Your task to perform on an android device: What's on my calendar today? Image 0: 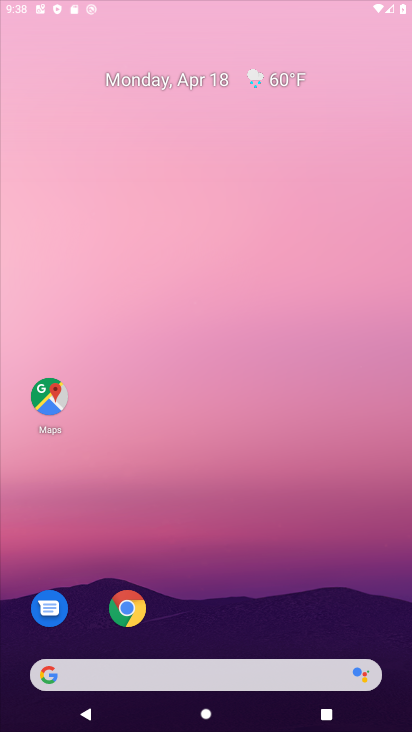
Step 0: click (273, 86)
Your task to perform on an android device: What's on my calendar today? Image 1: 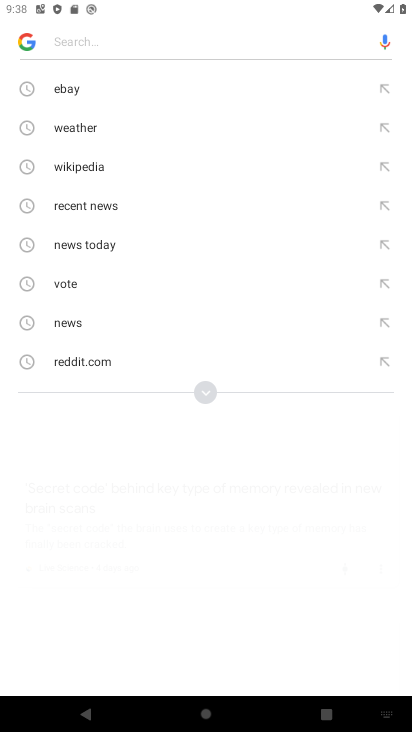
Step 1: click (77, 719)
Your task to perform on an android device: What's on my calendar today? Image 2: 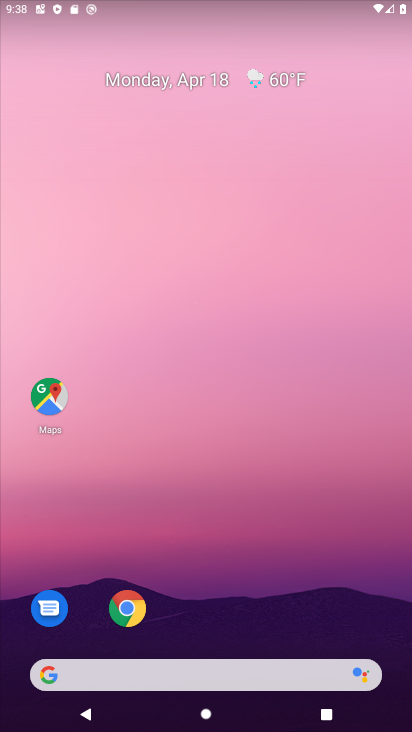
Step 2: drag from (231, 563) to (292, 63)
Your task to perform on an android device: What's on my calendar today? Image 3: 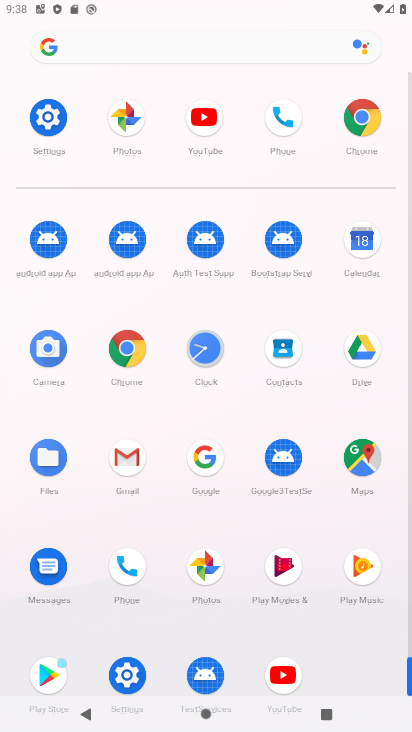
Step 3: click (366, 241)
Your task to perform on an android device: What's on my calendar today? Image 4: 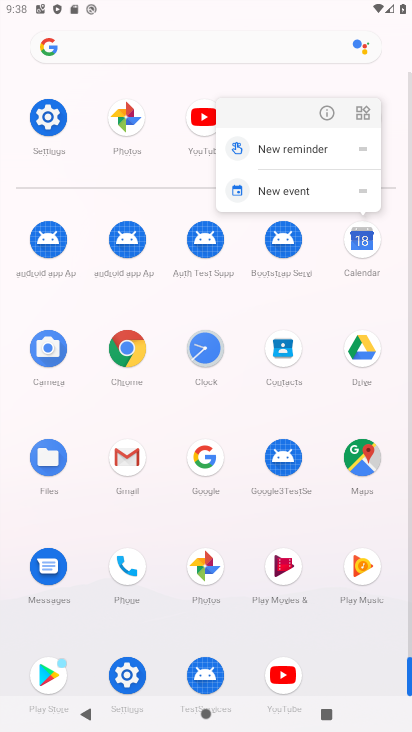
Step 4: click (327, 114)
Your task to perform on an android device: What's on my calendar today? Image 5: 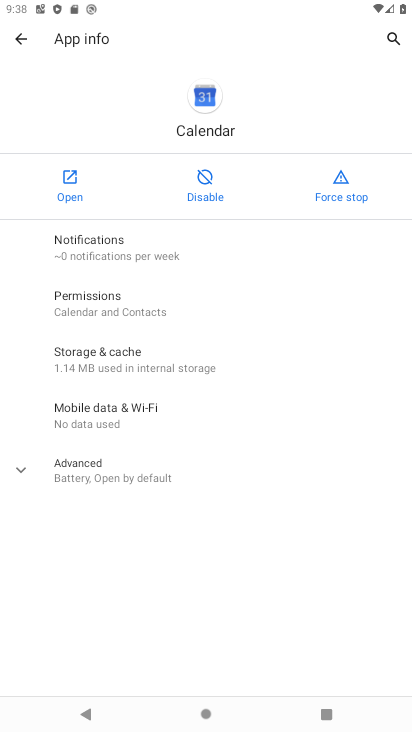
Step 5: click (78, 188)
Your task to perform on an android device: What's on my calendar today? Image 6: 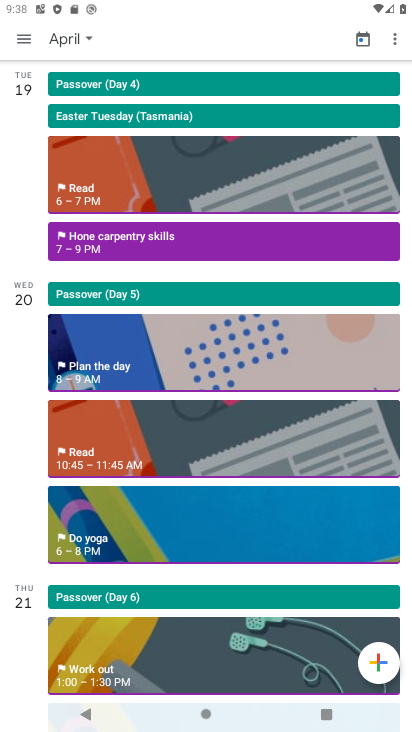
Step 6: click (24, 35)
Your task to perform on an android device: What's on my calendar today? Image 7: 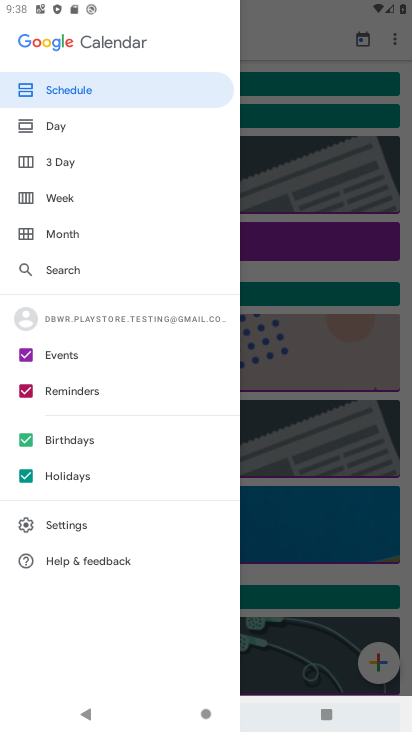
Step 7: click (321, 70)
Your task to perform on an android device: What's on my calendar today? Image 8: 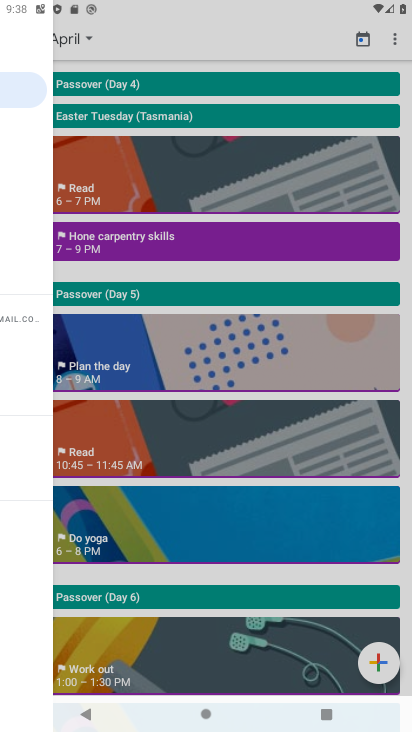
Step 8: drag from (269, 101) to (318, 516)
Your task to perform on an android device: What's on my calendar today? Image 9: 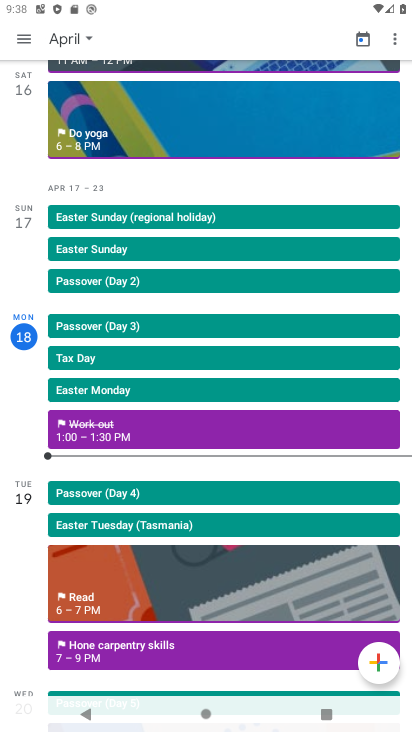
Step 9: click (68, 32)
Your task to perform on an android device: What's on my calendar today? Image 10: 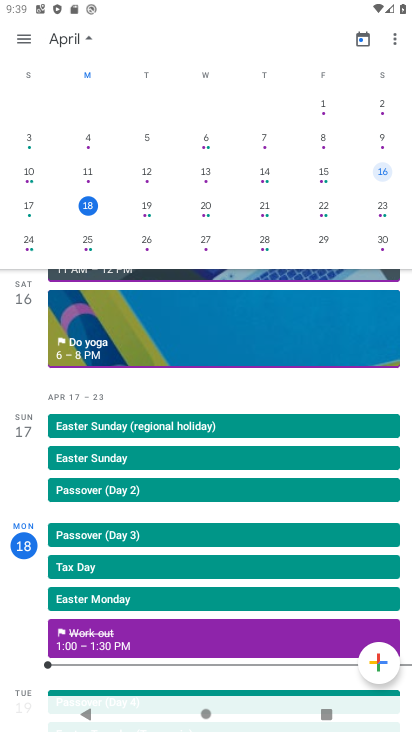
Step 10: click (88, 208)
Your task to perform on an android device: What's on my calendar today? Image 11: 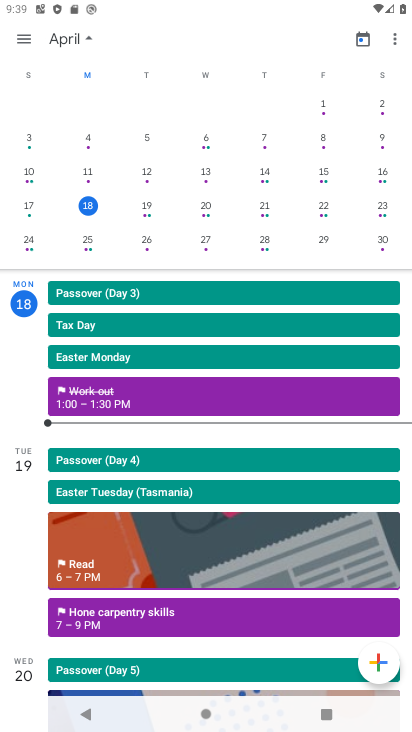
Step 11: task complete